Your task to perform on an android device: Open calendar and show me the third week of next month Image 0: 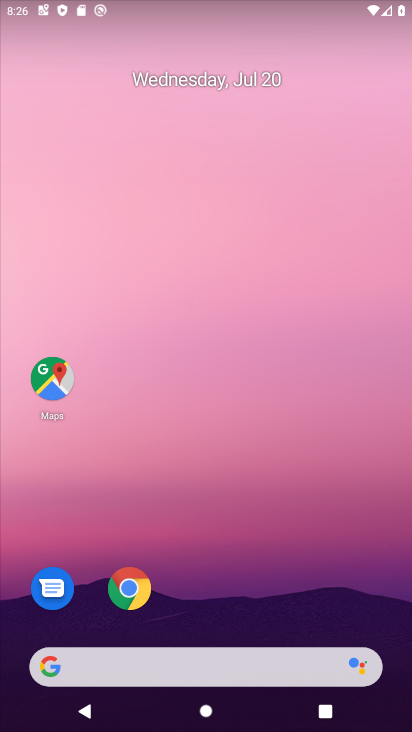
Step 0: click (172, 72)
Your task to perform on an android device: Open calendar and show me the third week of next month Image 1: 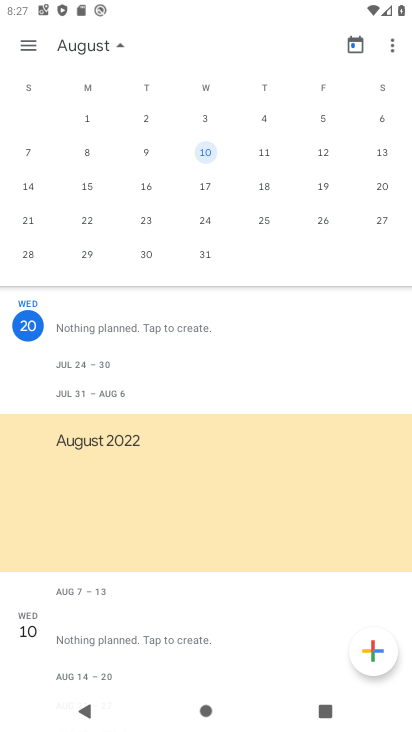
Step 1: click (209, 178)
Your task to perform on an android device: Open calendar and show me the third week of next month Image 2: 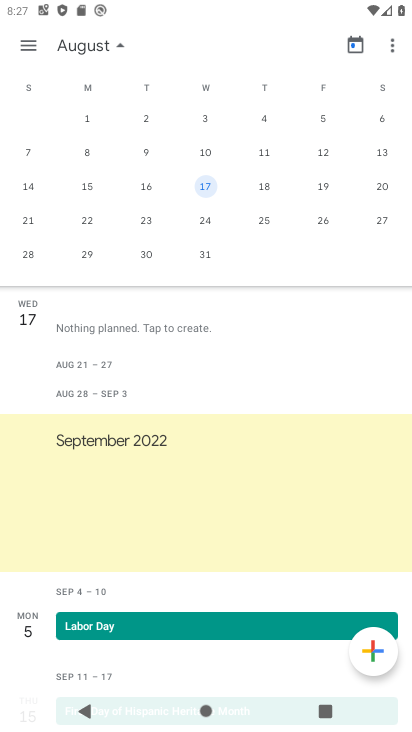
Step 2: task complete